Your task to perform on an android device: Go to network settings Image 0: 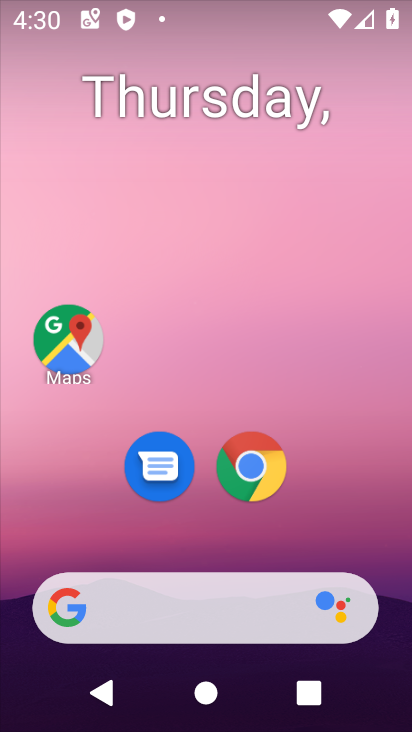
Step 0: drag from (206, 544) to (240, 5)
Your task to perform on an android device: Go to network settings Image 1: 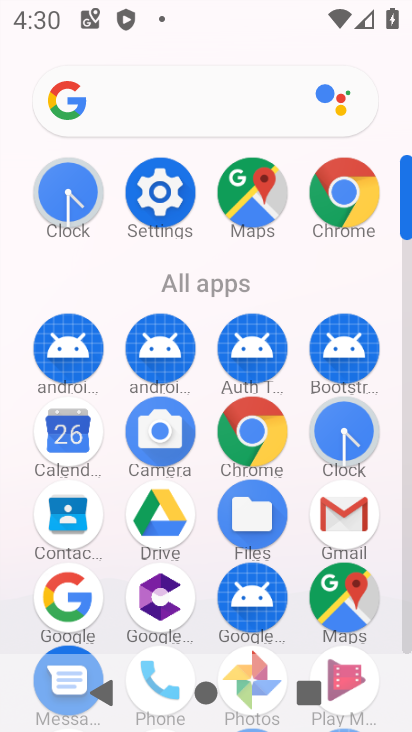
Step 1: click (161, 184)
Your task to perform on an android device: Go to network settings Image 2: 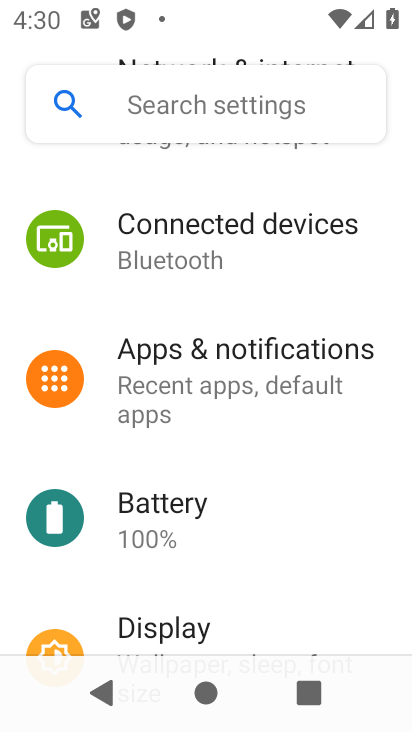
Step 2: drag from (191, 202) to (229, 650)
Your task to perform on an android device: Go to network settings Image 3: 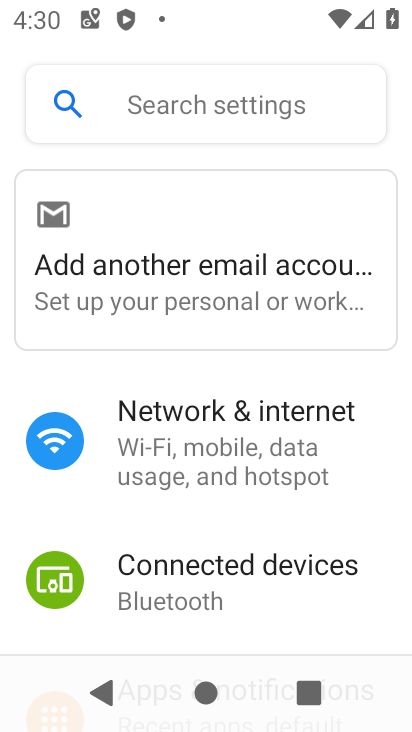
Step 3: click (232, 446)
Your task to perform on an android device: Go to network settings Image 4: 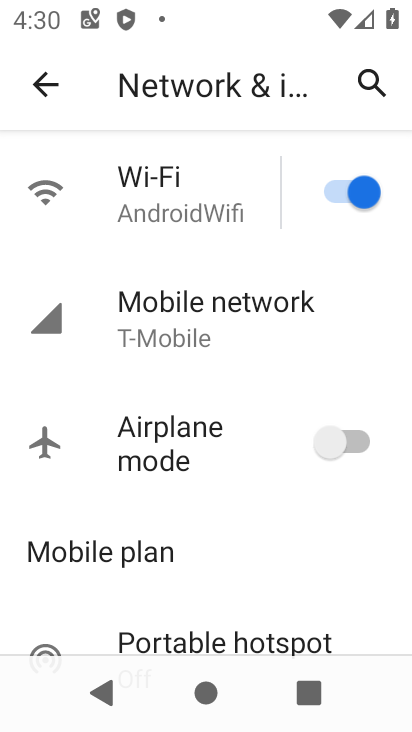
Step 4: drag from (220, 624) to (226, 145)
Your task to perform on an android device: Go to network settings Image 5: 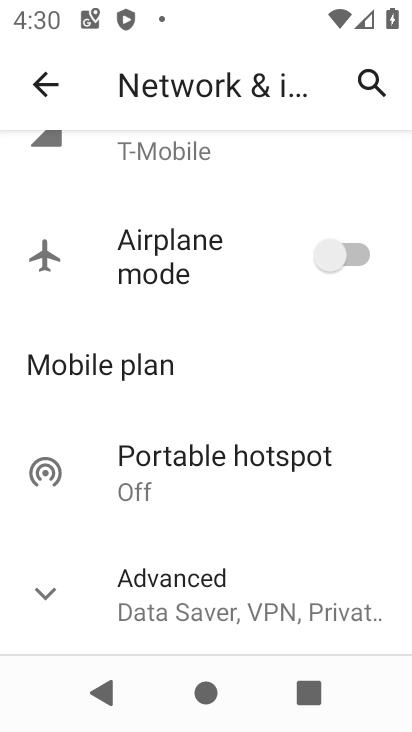
Step 5: click (37, 601)
Your task to perform on an android device: Go to network settings Image 6: 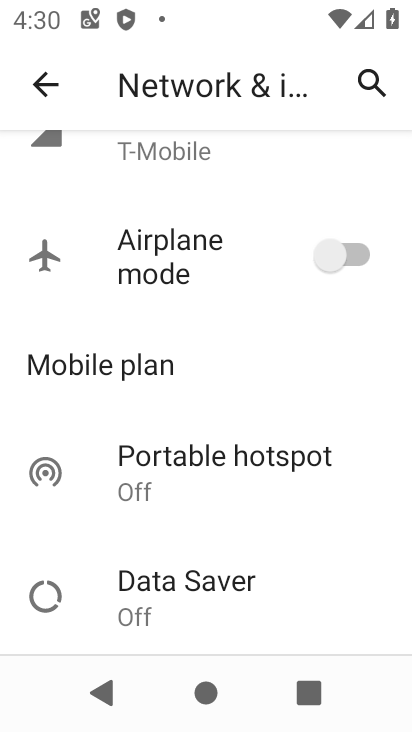
Step 6: task complete